Your task to perform on an android device: See recent photos Image 0: 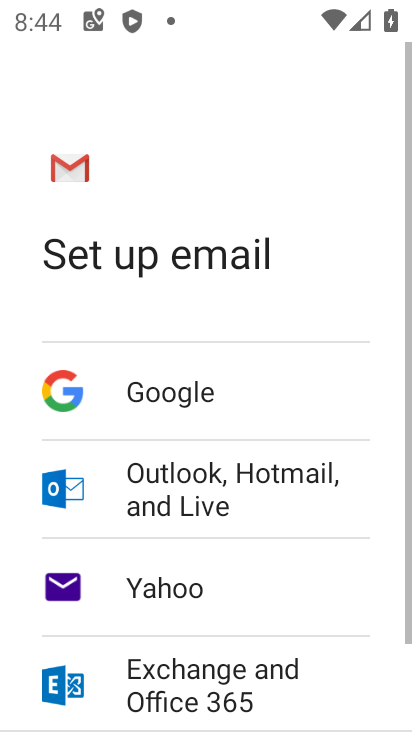
Step 0: press home button
Your task to perform on an android device: See recent photos Image 1: 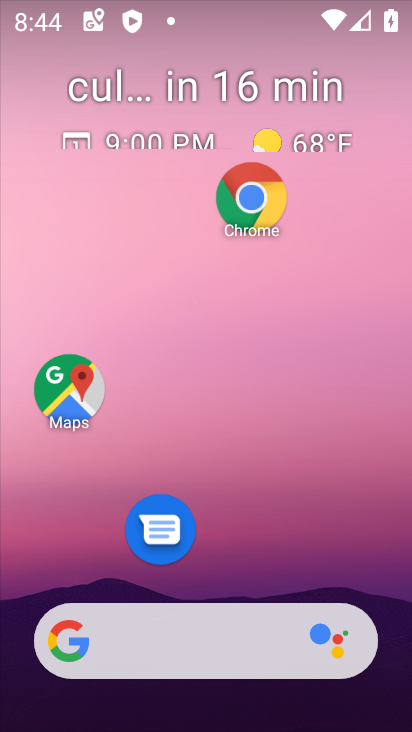
Step 1: drag from (210, 556) to (170, 173)
Your task to perform on an android device: See recent photos Image 2: 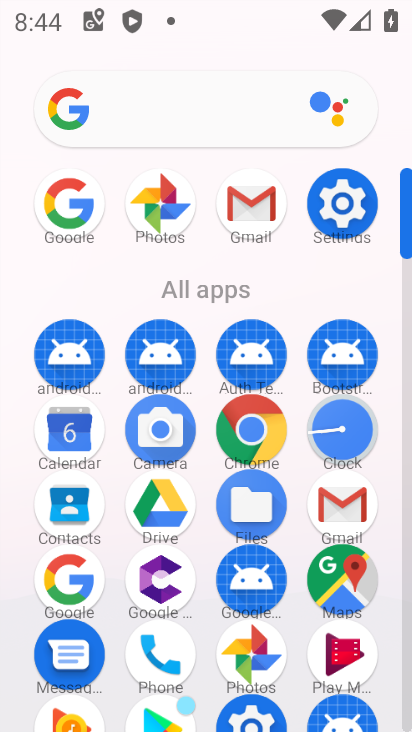
Step 2: drag from (188, 566) to (183, 351)
Your task to perform on an android device: See recent photos Image 3: 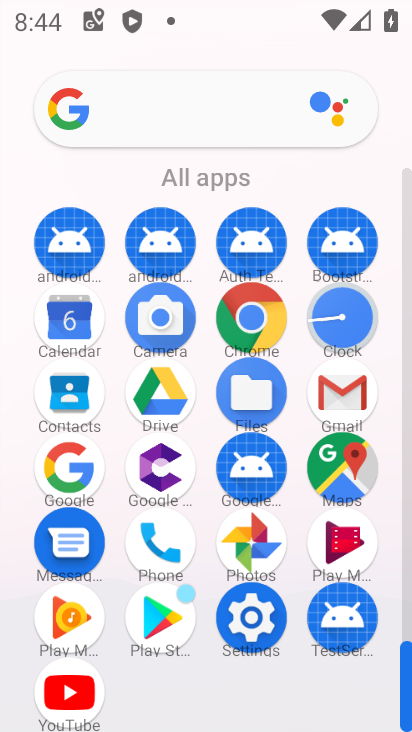
Step 3: click (239, 527)
Your task to perform on an android device: See recent photos Image 4: 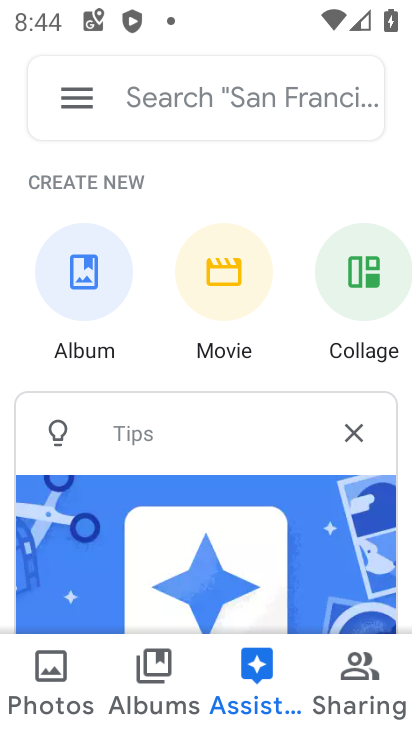
Step 4: click (35, 683)
Your task to perform on an android device: See recent photos Image 5: 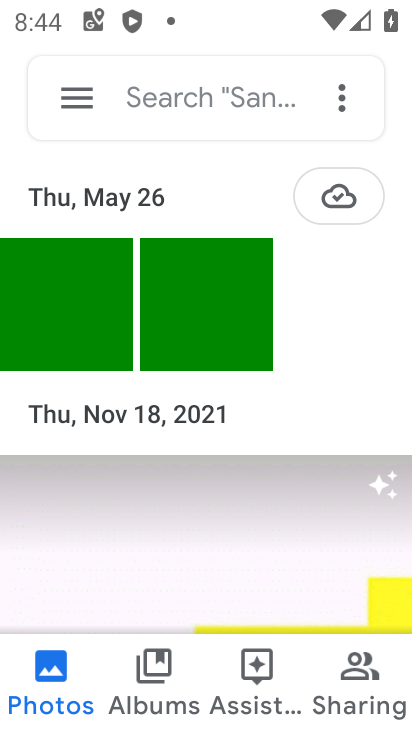
Step 5: task complete